Your task to perform on an android device: toggle wifi Image 0: 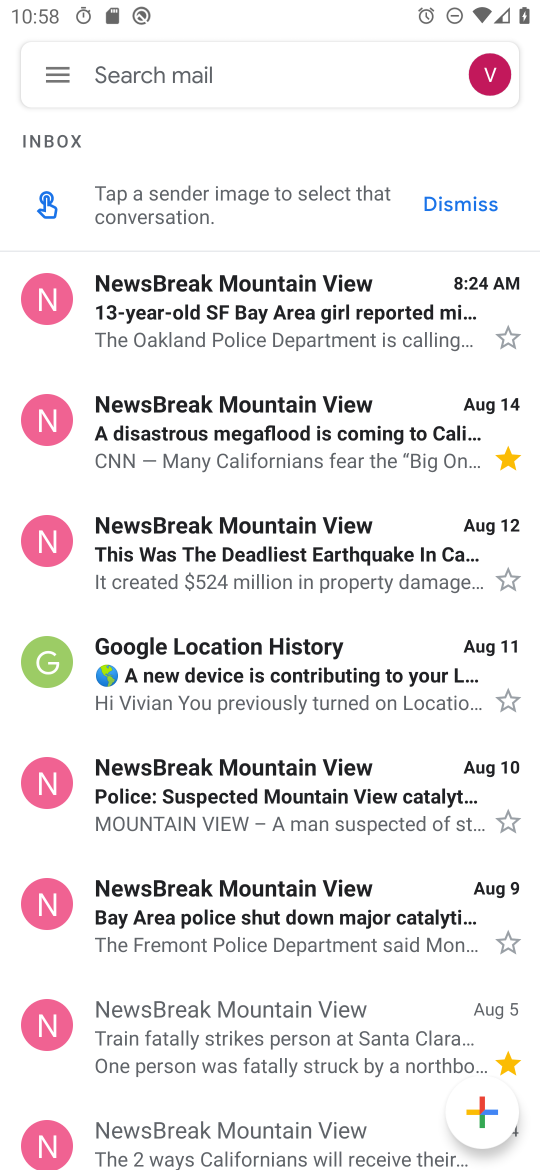
Step 0: press home button
Your task to perform on an android device: toggle wifi Image 1: 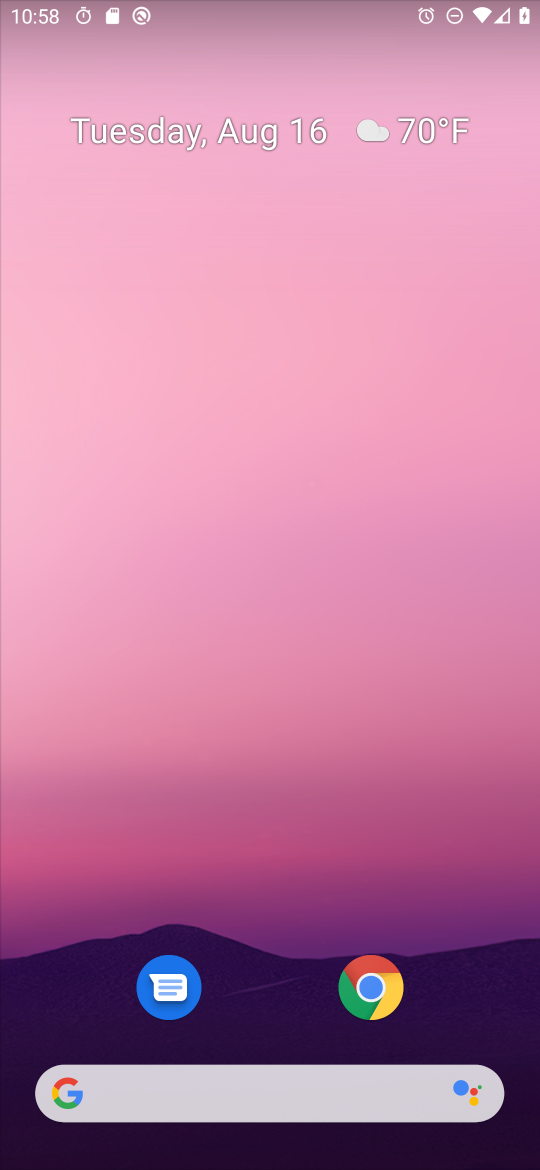
Step 1: drag from (18, 1138) to (47, 888)
Your task to perform on an android device: toggle wifi Image 2: 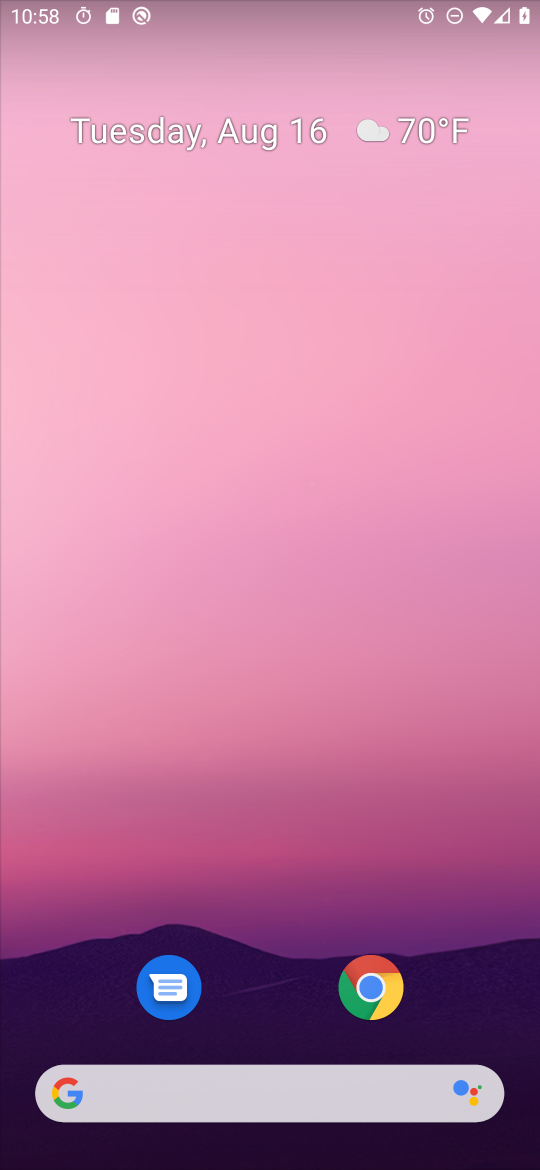
Step 2: drag from (42, 1055) to (37, 670)
Your task to perform on an android device: toggle wifi Image 3: 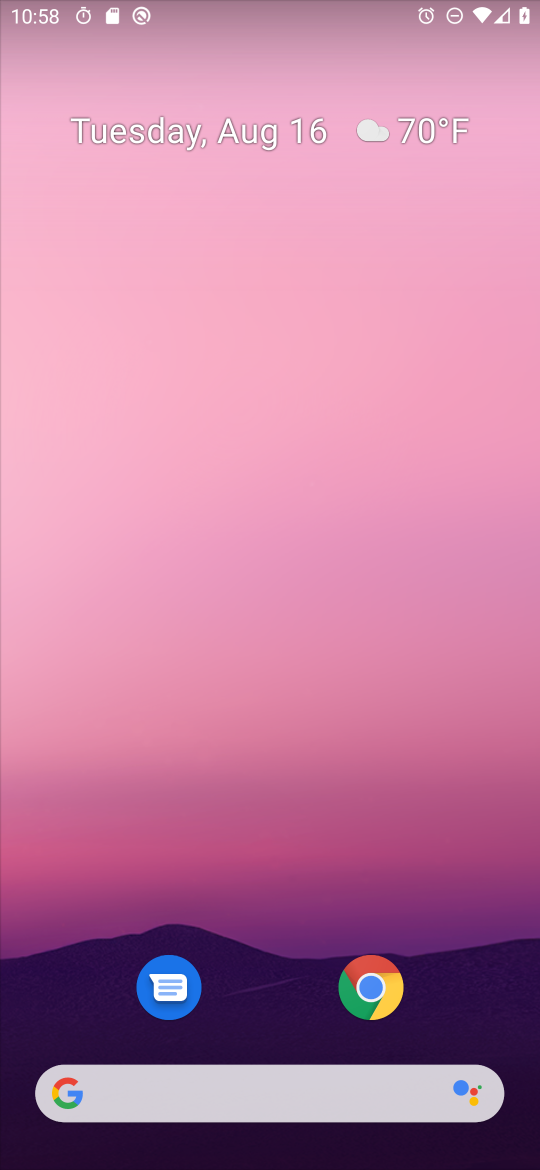
Step 3: drag from (17, 1111) to (194, 303)
Your task to perform on an android device: toggle wifi Image 4: 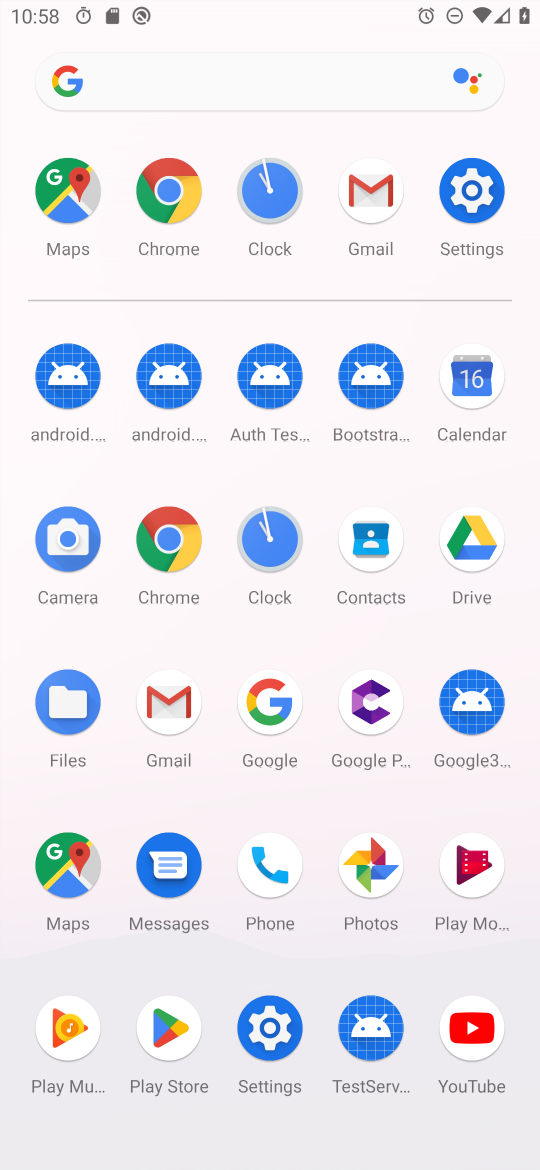
Step 4: click (250, 1033)
Your task to perform on an android device: toggle wifi Image 5: 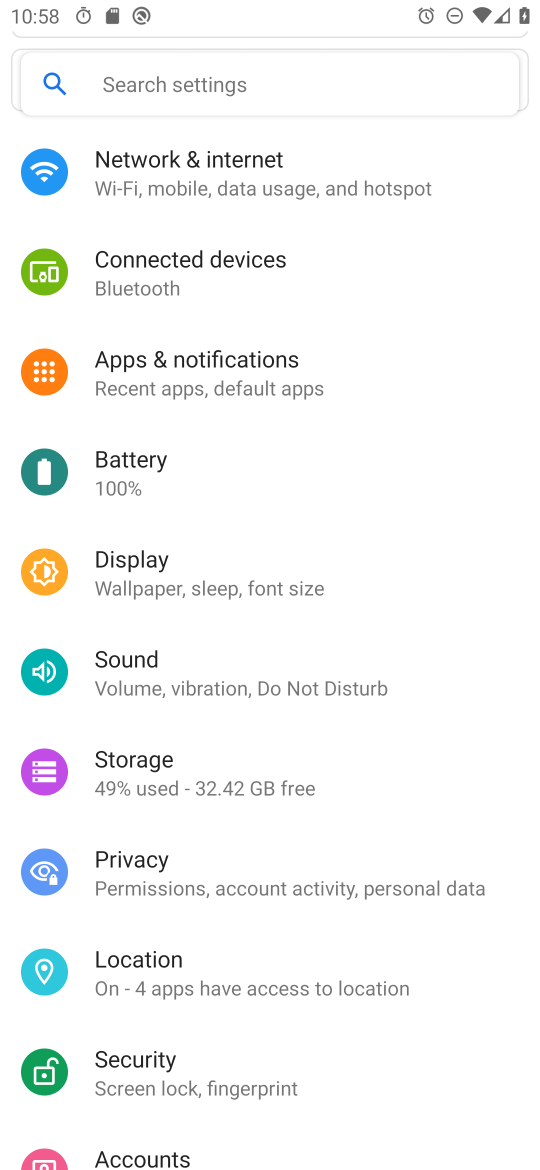
Step 5: drag from (488, 154) to (524, 819)
Your task to perform on an android device: toggle wifi Image 6: 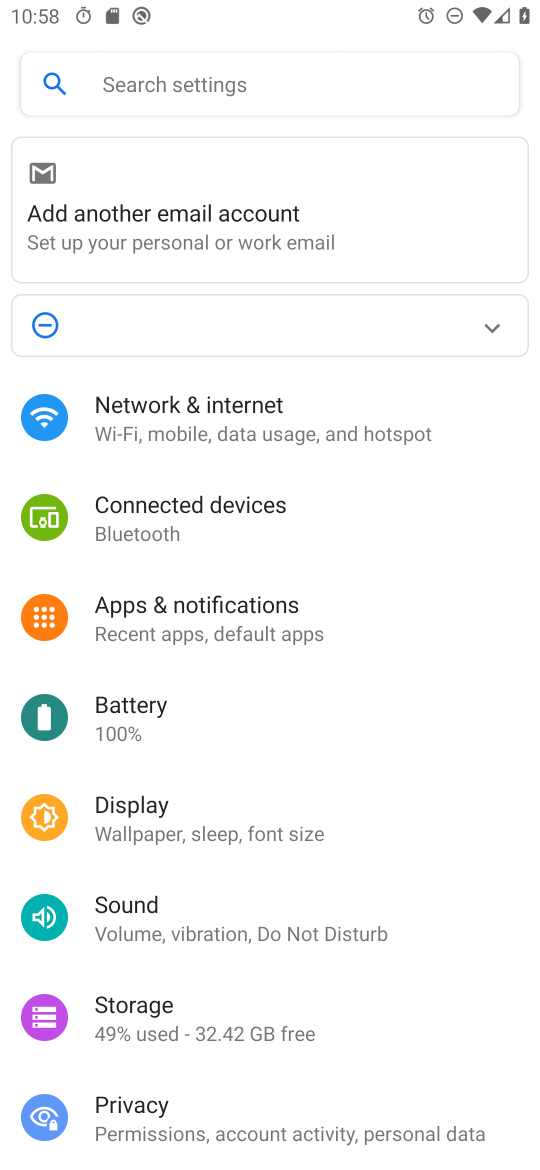
Step 6: click (166, 424)
Your task to perform on an android device: toggle wifi Image 7: 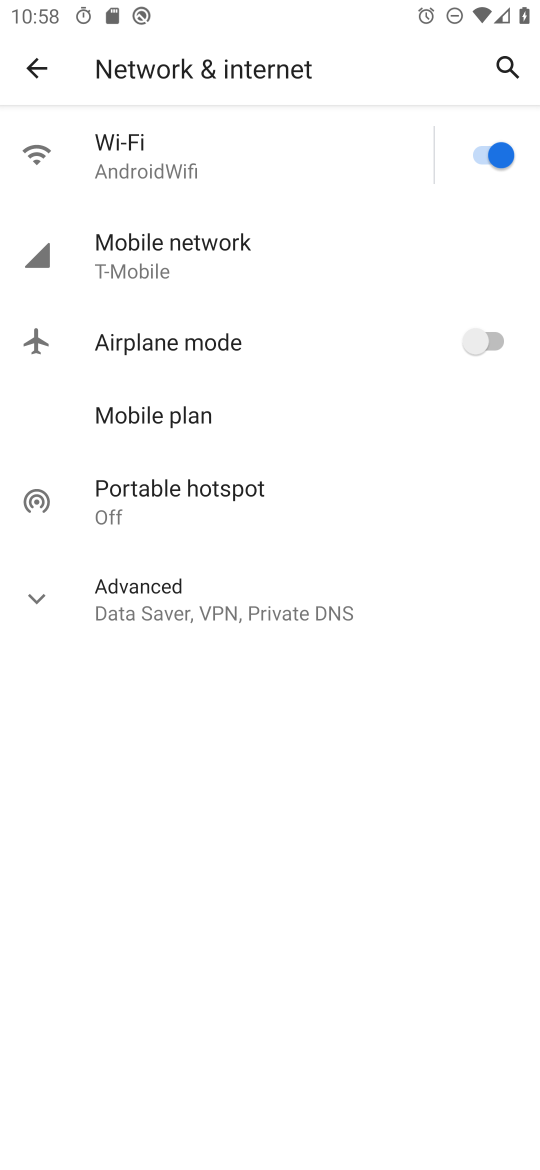
Step 7: task complete